Your task to perform on an android device: check battery use Image 0: 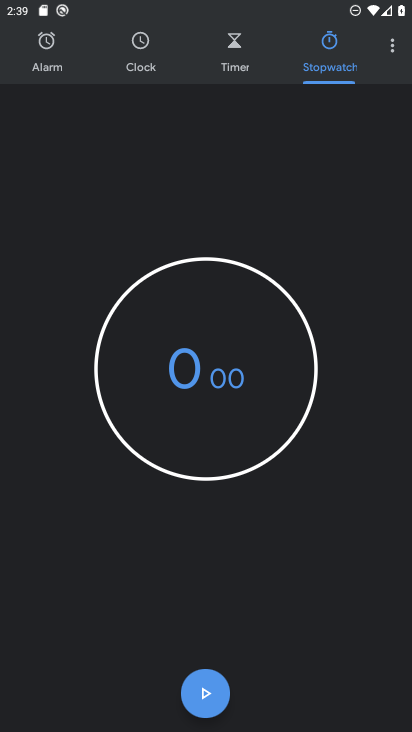
Step 0: press home button
Your task to perform on an android device: check battery use Image 1: 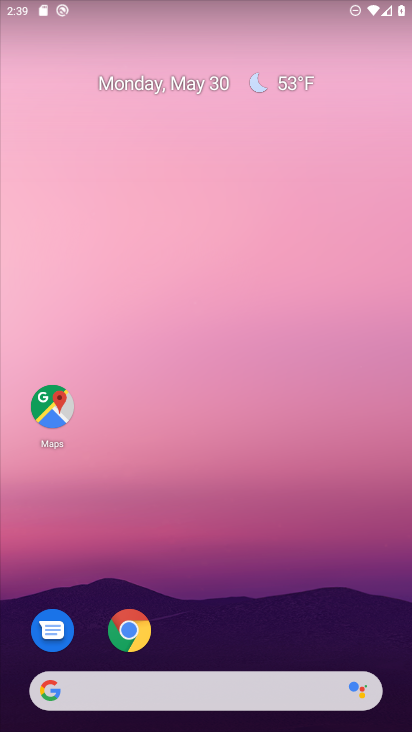
Step 1: drag from (275, 695) to (270, 112)
Your task to perform on an android device: check battery use Image 2: 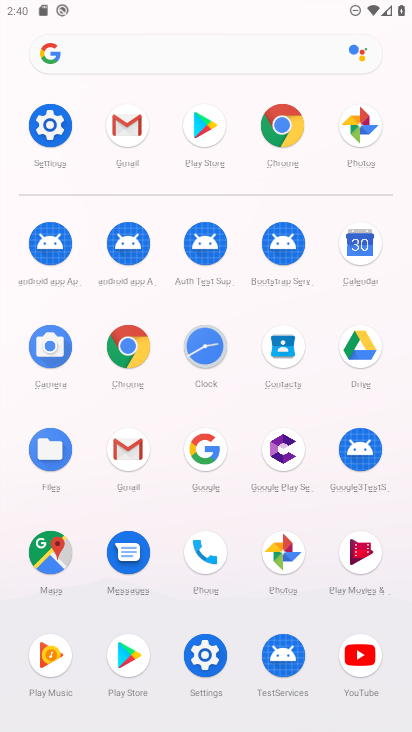
Step 2: click (212, 648)
Your task to perform on an android device: check battery use Image 3: 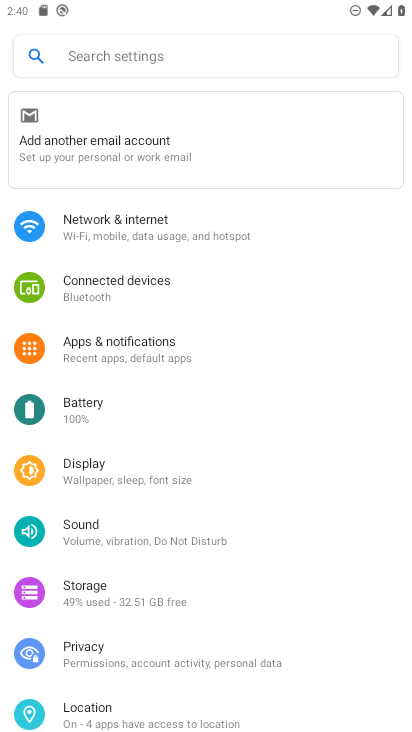
Step 3: click (90, 415)
Your task to perform on an android device: check battery use Image 4: 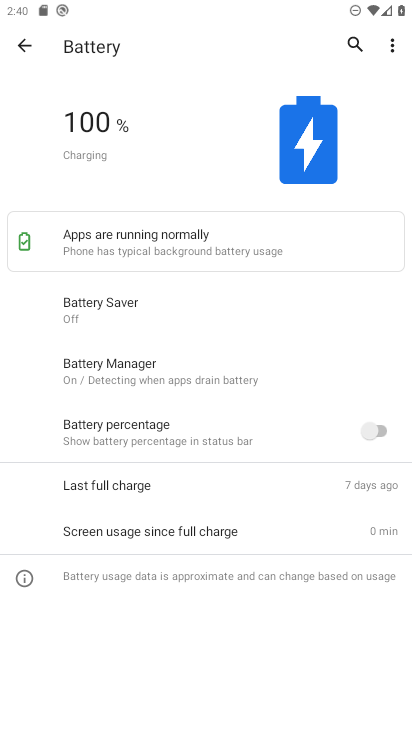
Step 4: click (387, 41)
Your task to perform on an android device: check battery use Image 5: 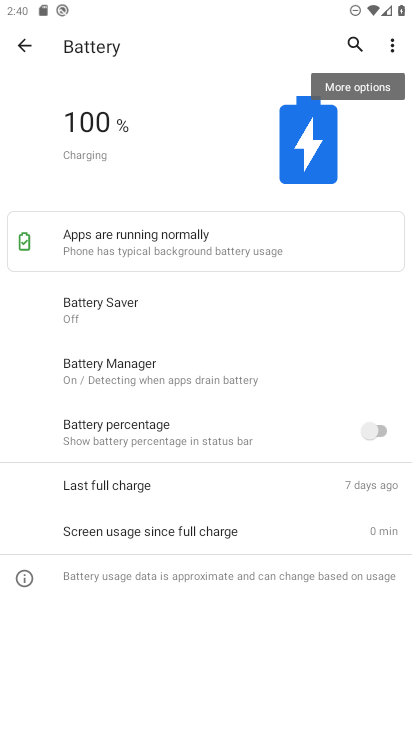
Step 5: click (387, 41)
Your task to perform on an android device: check battery use Image 6: 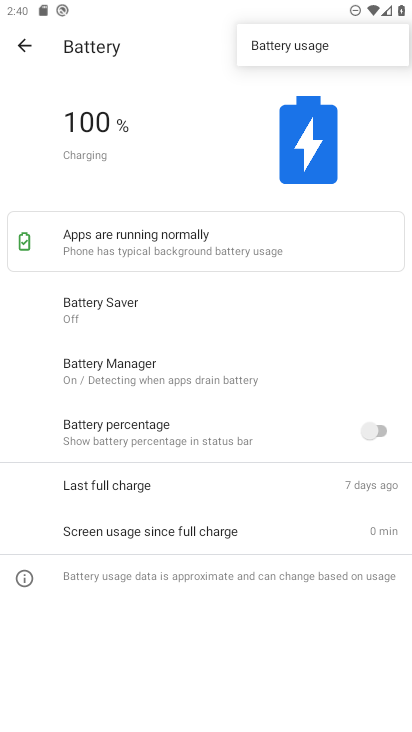
Step 6: click (347, 69)
Your task to perform on an android device: check battery use Image 7: 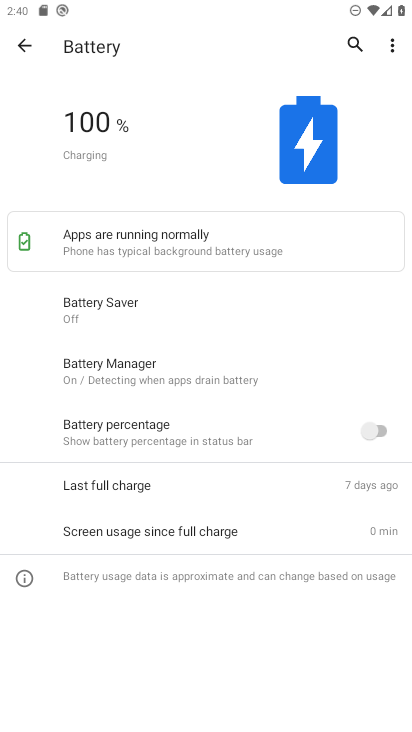
Step 7: click (386, 50)
Your task to perform on an android device: check battery use Image 8: 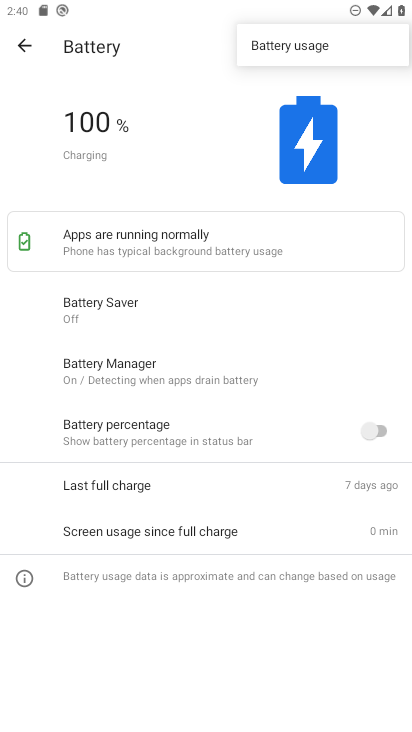
Step 8: click (384, 50)
Your task to perform on an android device: check battery use Image 9: 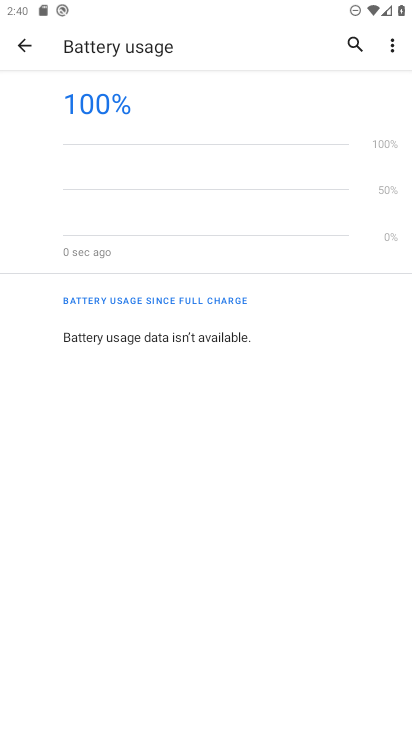
Step 9: task complete